Your task to perform on an android device: search for 2021 honda civic Image 0: 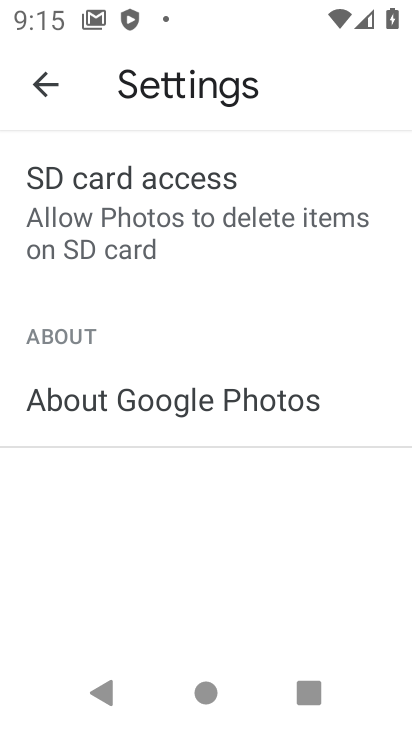
Step 0: press home button
Your task to perform on an android device: search for 2021 honda civic Image 1: 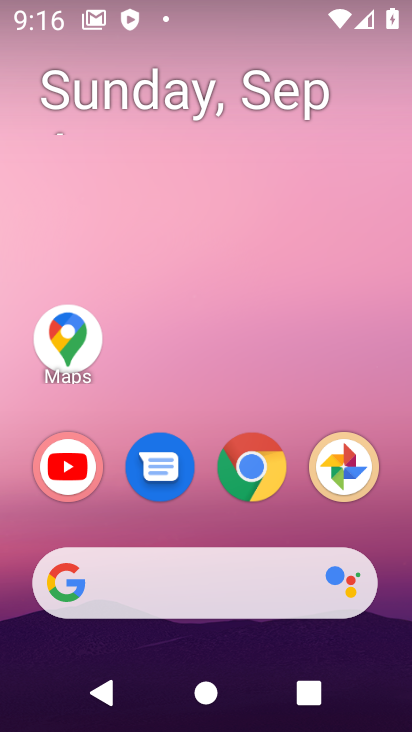
Step 1: click (231, 467)
Your task to perform on an android device: search for 2021 honda civic Image 2: 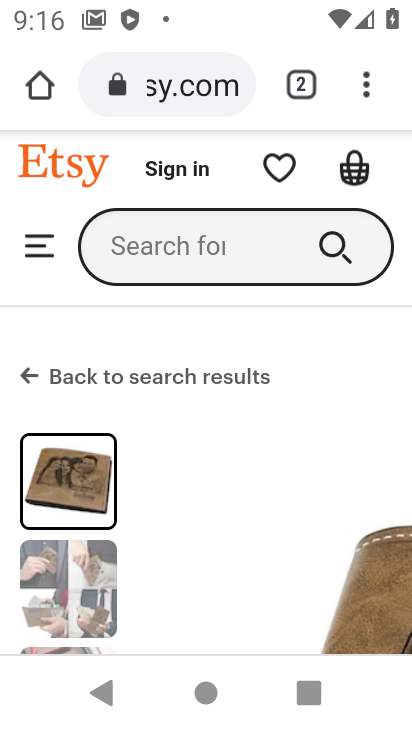
Step 2: click (153, 87)
Your task to perform on an android device: search for 2021 honda civic Image 3: 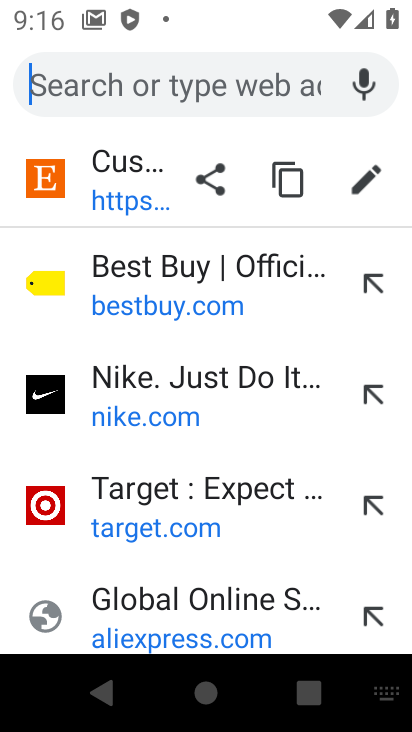
Step 3: type "2021 honda civic"
Your task to perform on an android device: search for 2021 honda civic Image 4: 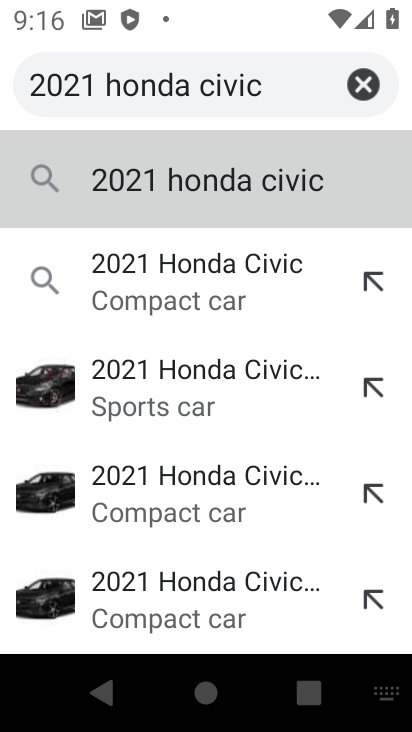
Step 4: click (169, 367)
Your task to perform on an android device: search for 2021 honda civic Image 5: 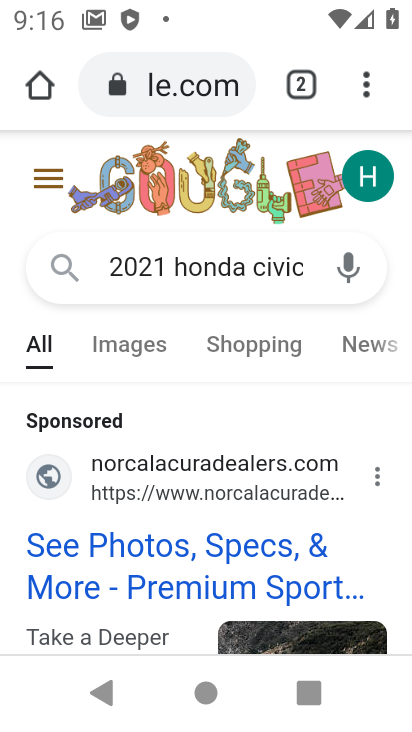
Step 5: drag from (384, 526) to (340, 175)
Your task to perform on an android device: search for 2021 honda civic Image 6: 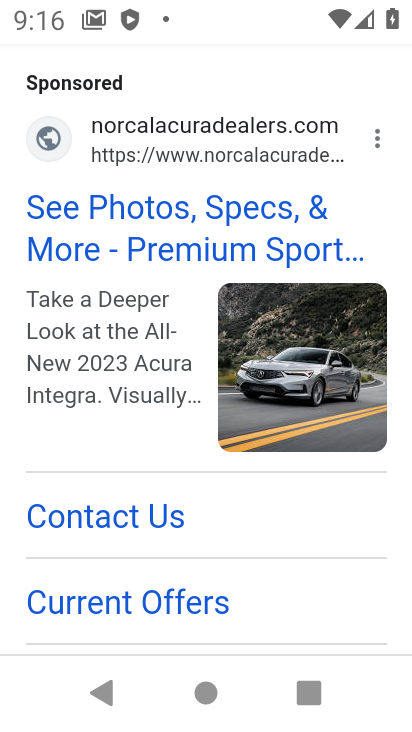
Step 6: drag from (304, 606) to (337, 252)
Your task to perform on an android device: search for 2021 honda civic Image 7: 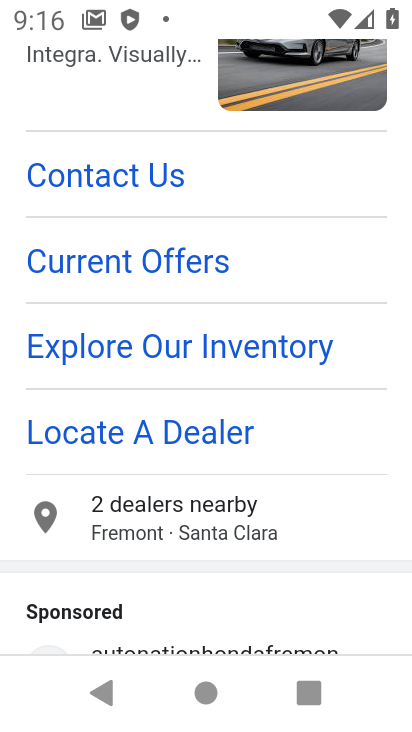
Step 7: drag from (320, 559) to (337, 206)
Your task to perform on an android device: search for 2021 honda civic Image 8: 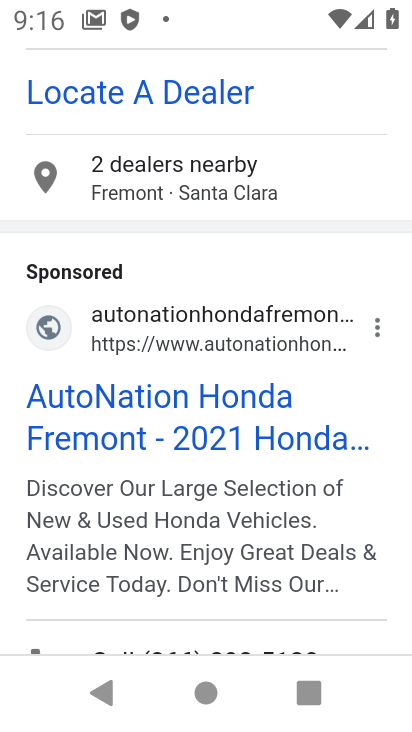
Step 8: drag from (310, 539) to (293, 248)
Your task to perform on an android device: search for 2021 honda civic Image 9: 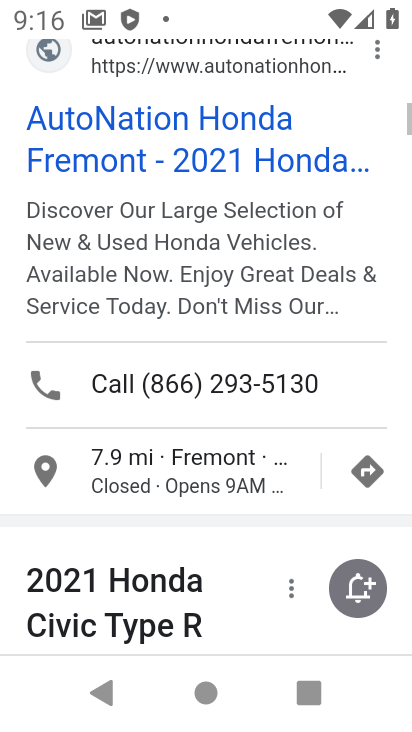
Step 9: drag from (202, 494) to (238, 149)
Your task to perform on an android device: search for 2021 honda civic Image 10: 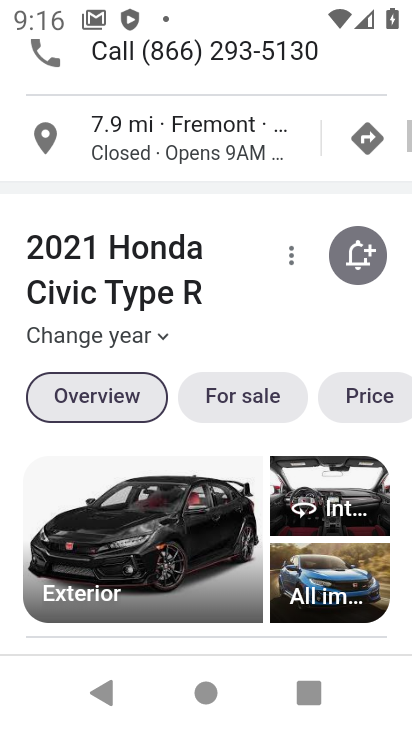
Step 10: drag from (178, 533) to (185, 139)
Your task to perform on an android device: search for 2021 honda civic Image 11: 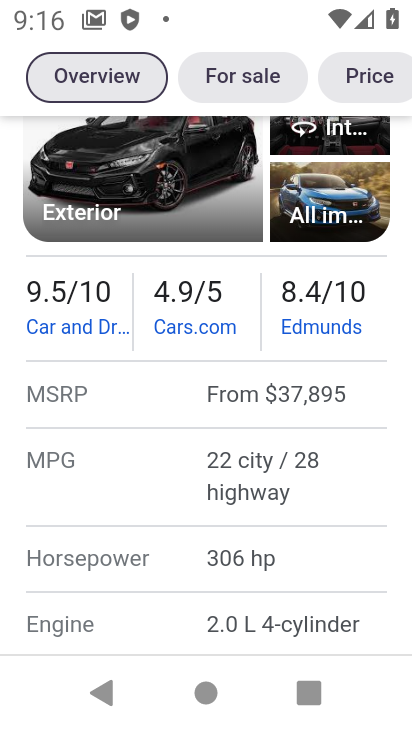
Step 11: drag from (149, 157) to (199, 538)
Your task to perform on an android device: search for 2021 honda civic Image 12: 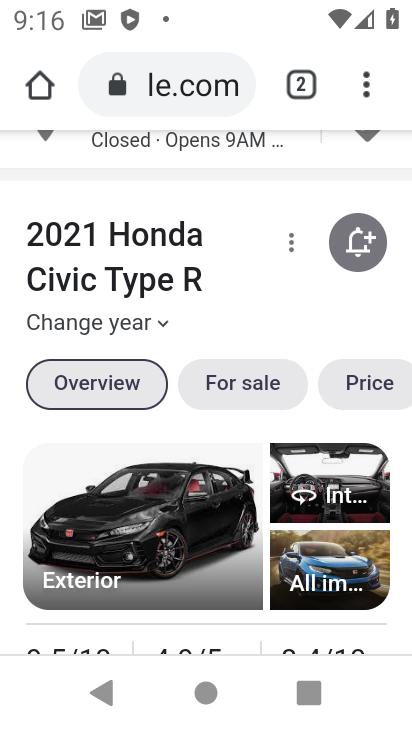
Step 12: drag from (349, 518) to (382, 208)
Your task to perform on an android device: search for 2021 honda civic Image 13: 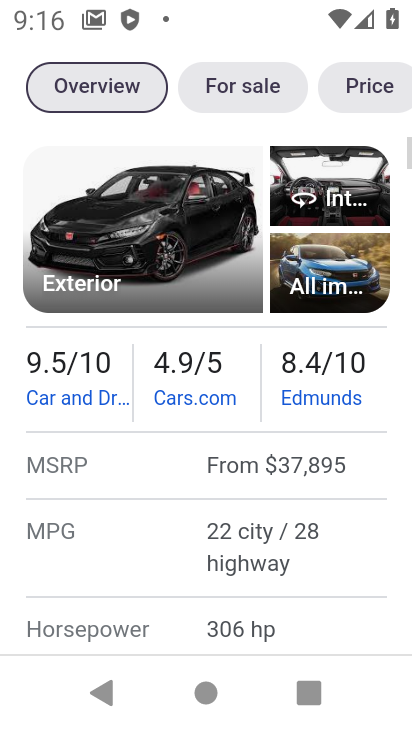
Step 13: drag from (313, 275) to (313, 233)
Your task to perform on an android device: search for 2021 honda civic Image 14: 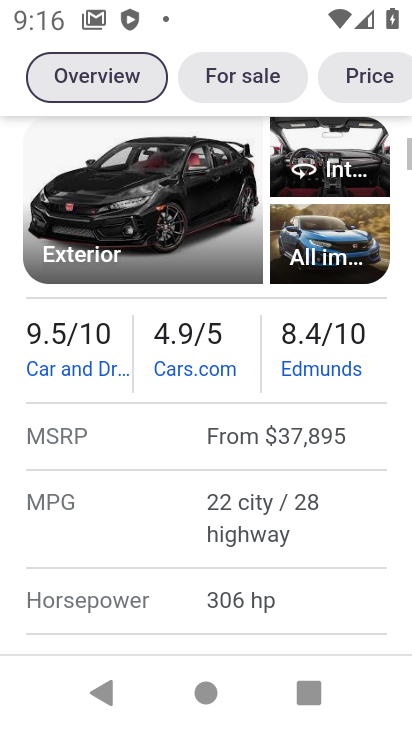
Step 14: drag from (351, 415) to (355, 243)
Your task to perform on an android device: search for 2021 honda civic Image 15: 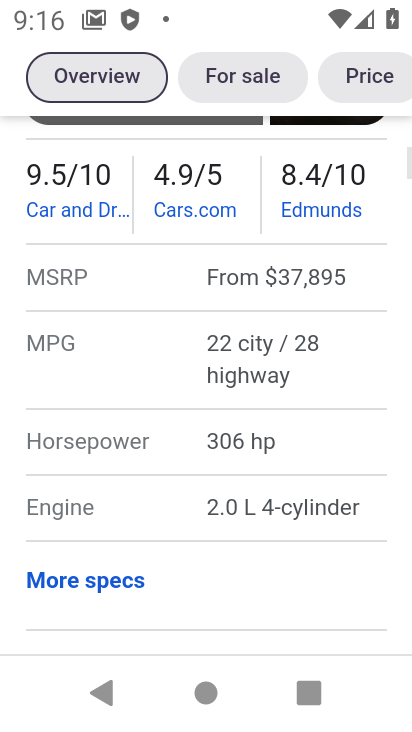
Step 15: drag from (264, 577) to (285, 299)
Your task to perform on an android device: search for 2021 honda civic Image 16: 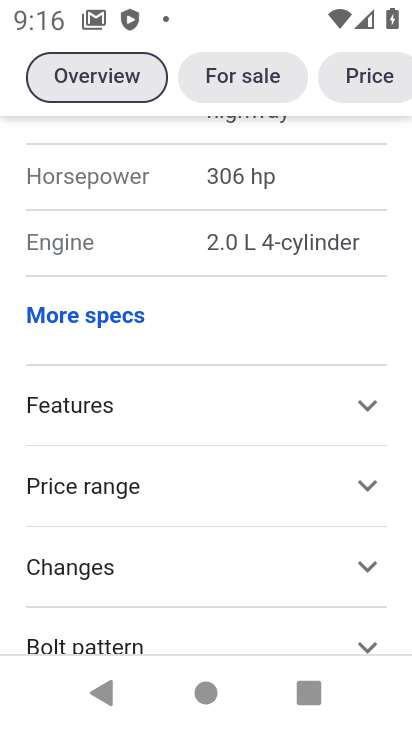
Step 16: drag from (217, 556) to (240, 377)
Your task to perform on an android device: search for 2021 honda civic Image 17: 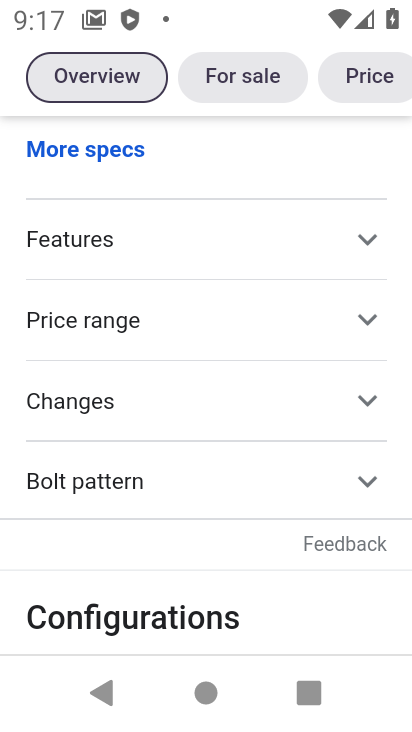
Step 17: click (360, 478)
Your task to perform on an android device: search for 2021 honda civic Image 18: 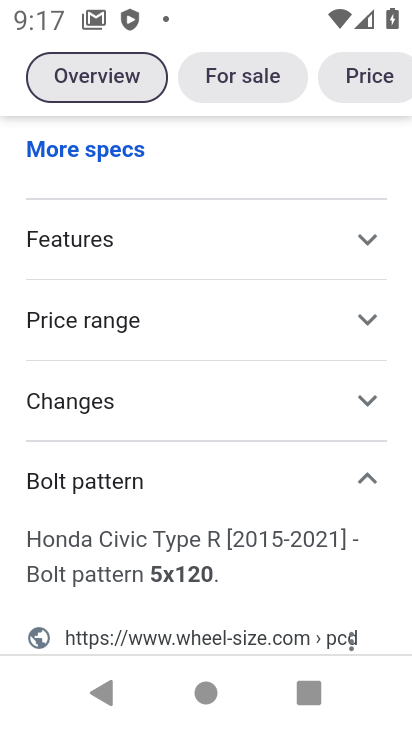
Step 18: drag from (267, 568) to (273, 65)
Your task to perform on an android device: search for 2021 honda civic Image 19: 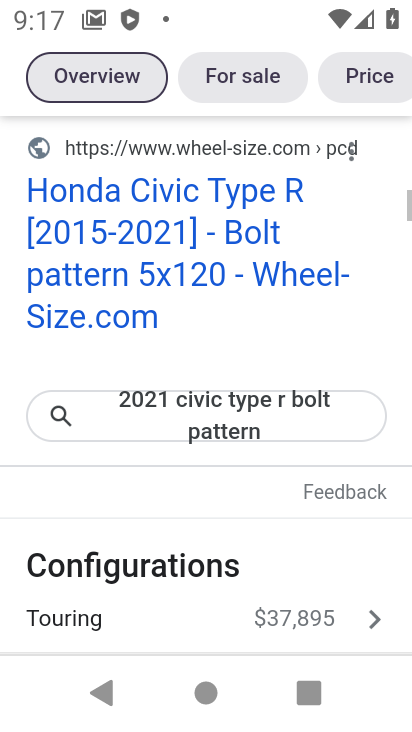
Step 19: drag from (246, 456) to (255, 498)
Your task to perform on an android device: search for 2021 honda civic Image 20: 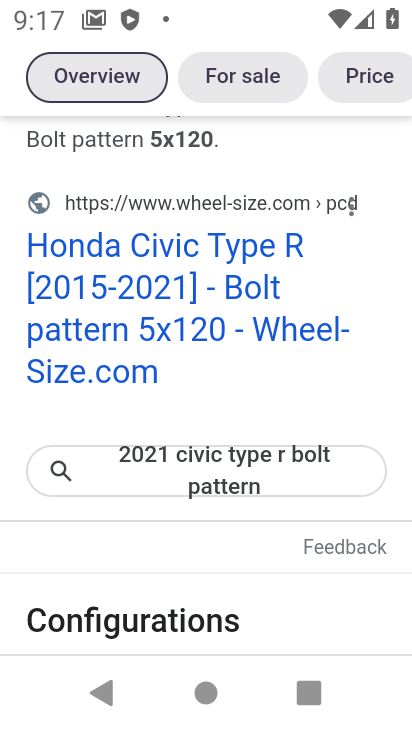
Step 20: click (159, 239)
Your task to perform on an android device: search for 2021 honda civic Image 21: 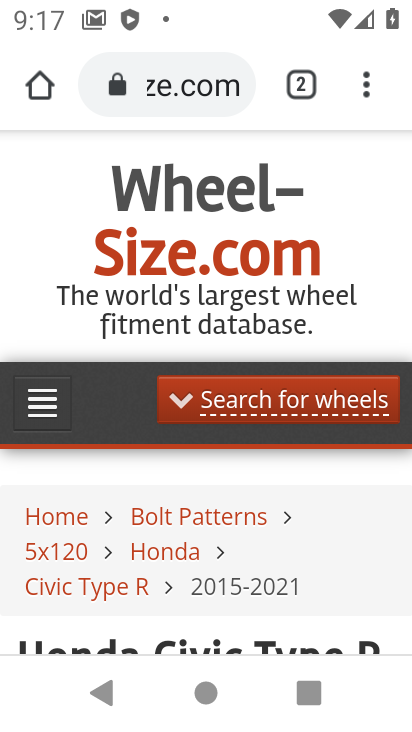
Step 21: task complete